Your task to perform on an android device: turn off smart reply in the gmail app Image 0: 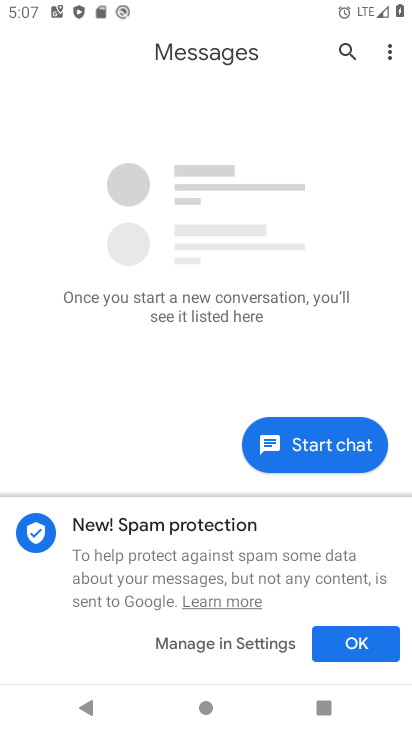
Step 0: drag from (325, 691) to (344, 336)
Your task to perform on an android device: turn off smart reply in the gmail app Image 1: 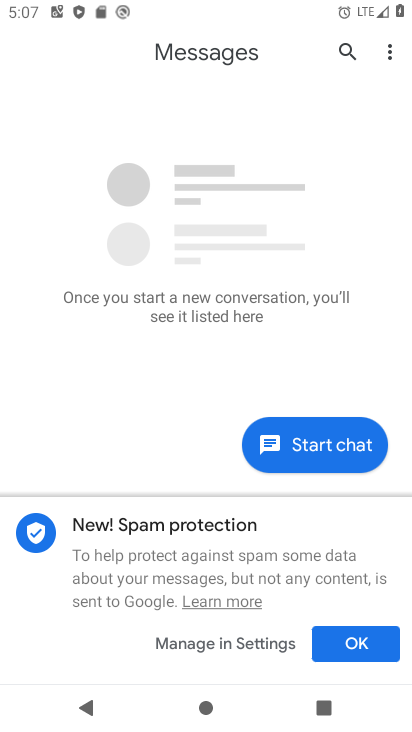
Step 1: press home button
Your task to perform on an android device: turn off smart reply in the gmail app Image 2: 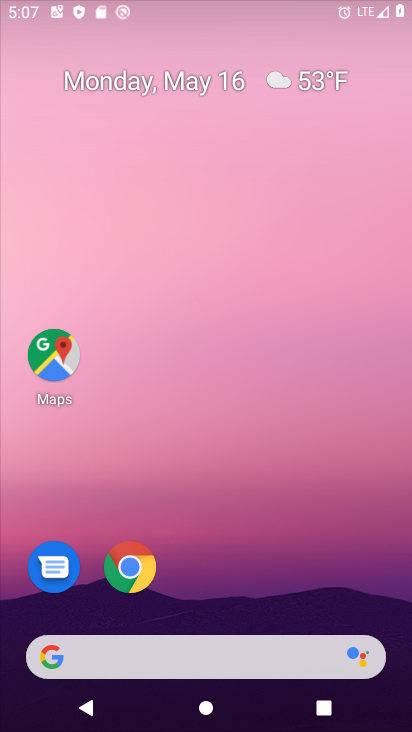
Step 2: drag from (294, 628) to (272, 49)
Your task to perform on an android device: turn off smart reply in the gmail app Image 3: 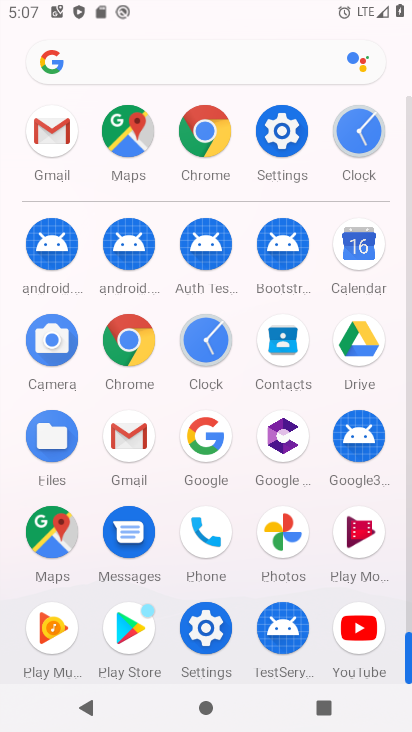
Step 3: click (142, 437)
Your task to perform on an android device: turn off smart reply in the gmail app Image 4: 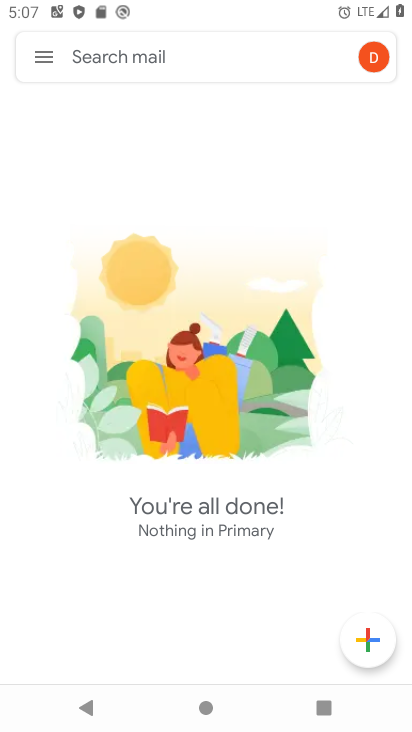
Step 4: click (38, 55)
Your task to perform on an android device: turn off smart reply in the gmail app Image 5: 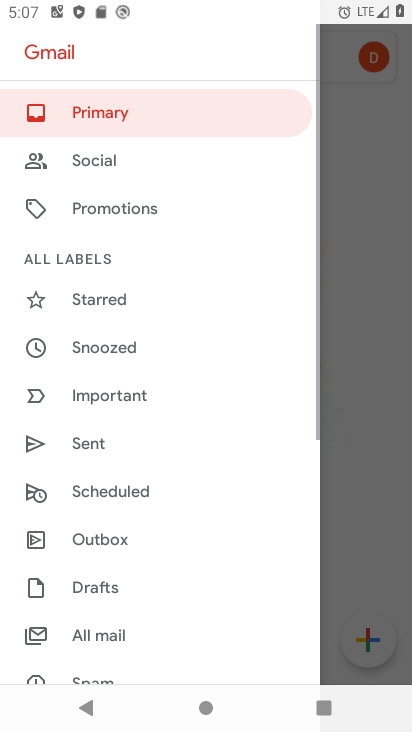
Step 5: drag from (195, 655) to (206, 12)
Your task to perform on an android device: turn off smart reply in the gmail app Image 6: 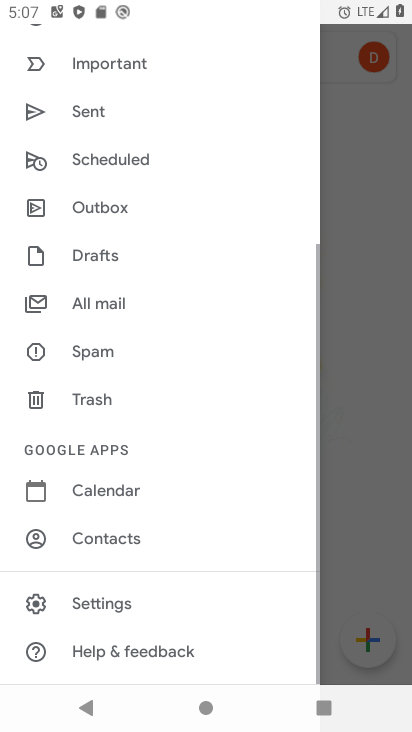
Step 6: click (159, 606)
Your task to perform on an android device: turn off smart reply in the gmail app Image 7: 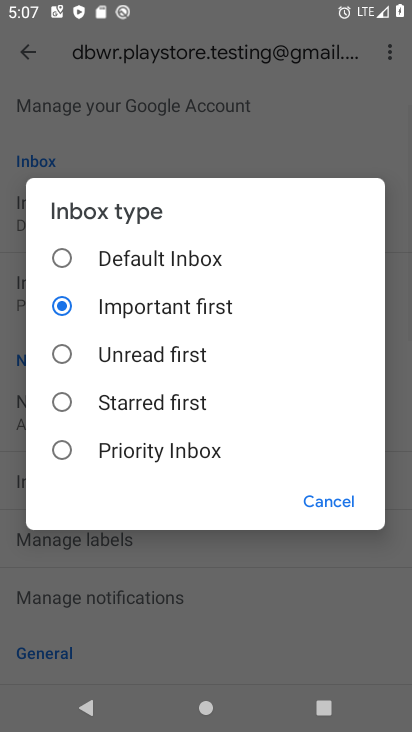
Step 7: click (335, 492)
Your task to perform on an android device: turn off smart reply in the gmail app Image 8: 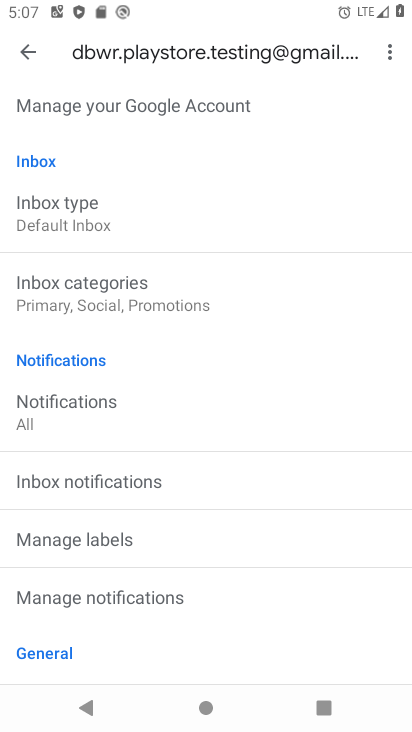
Step 8: drag from (324, 631) to (353, 15)
Your task to perform on an android device: turn off smart reply in the gmail app Image 9: 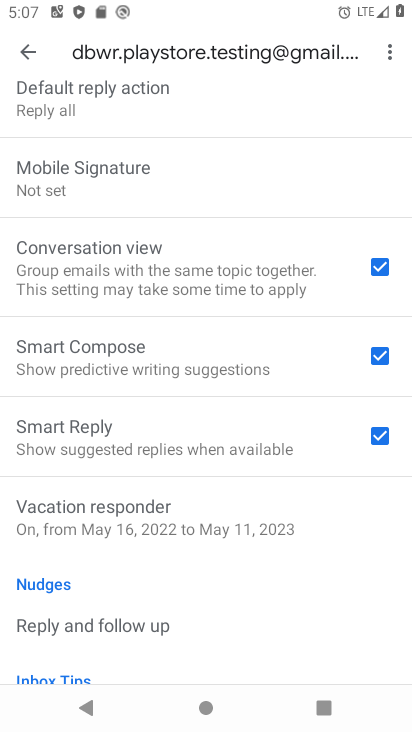
Step 9: click (370, 436)
Your task to perform on an android device: turn off smart reply in the gmail app Image 10: 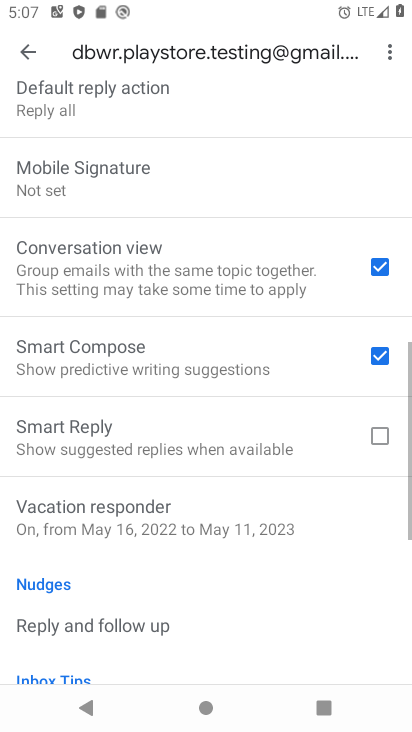
Step 10: task complete